Your task to perform on an android device: turn on the 12-hour format for clock Image 0: 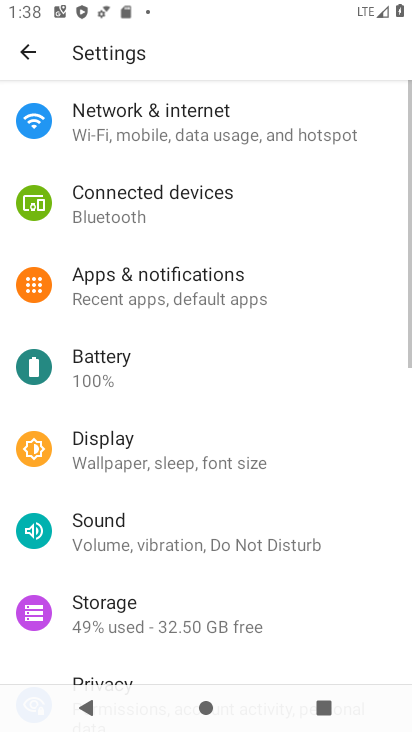
Step 0: press home button
Your task to perform on an android device: turn on the 12-hour format for clock Image 1: 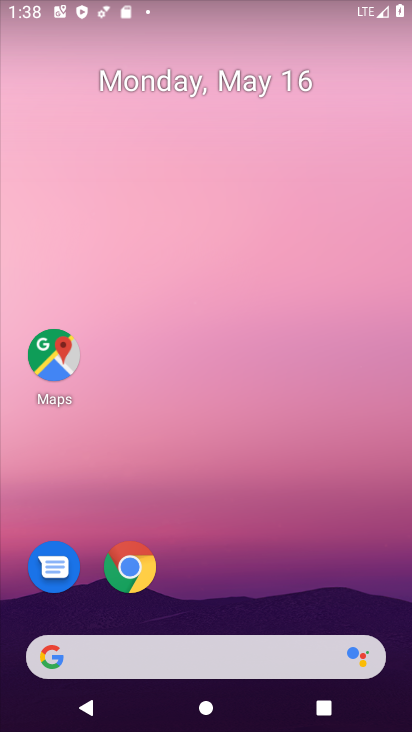
Step 1: drag from (250, 562) to (149, 105)
Your task to perform on an android device: turn on the 12-hour format for clock Image 2: 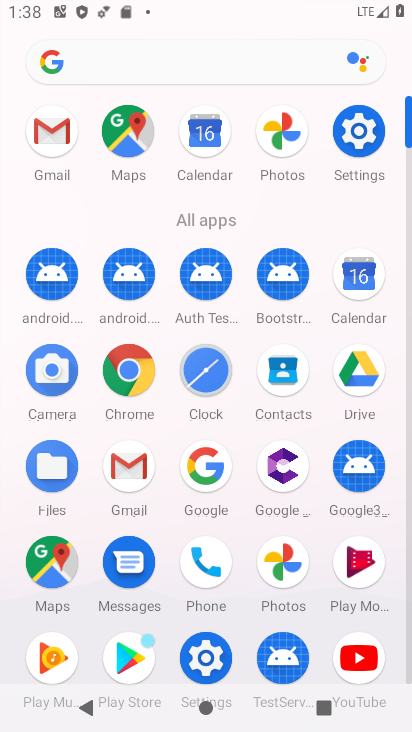
Step 2: click (220, 375)
Your task to perform on an android device: turn on the 12-hour format for clock Image 3: 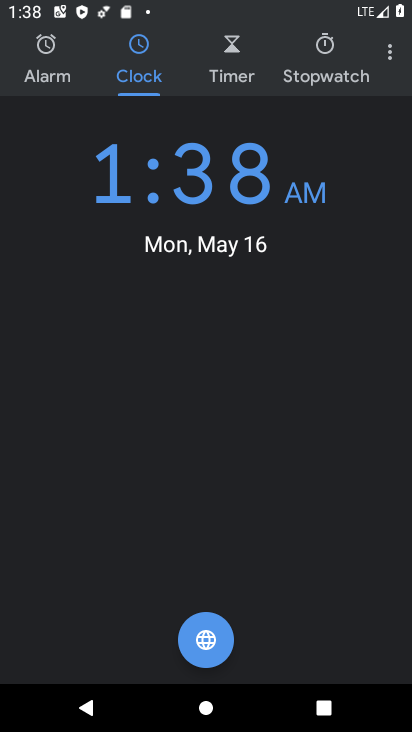
Step 3: click (388, 60)
Your task to perform on an android device: turn on the 12-hour format for clock Image 4: 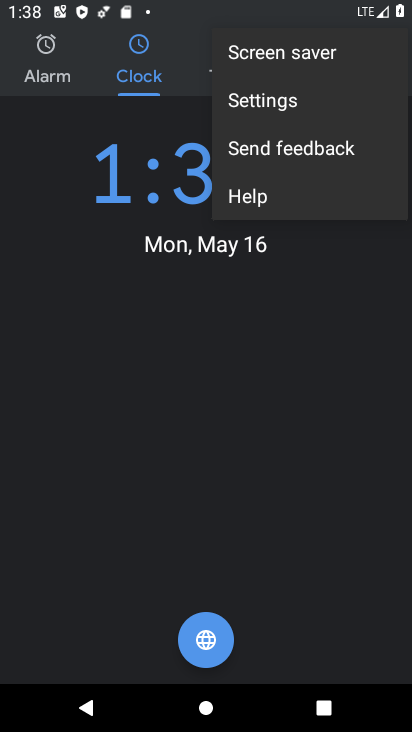
Step 4: click (342, 104)
Your task to perform on an android device: turn on the 12-hour format for clock Image 5: 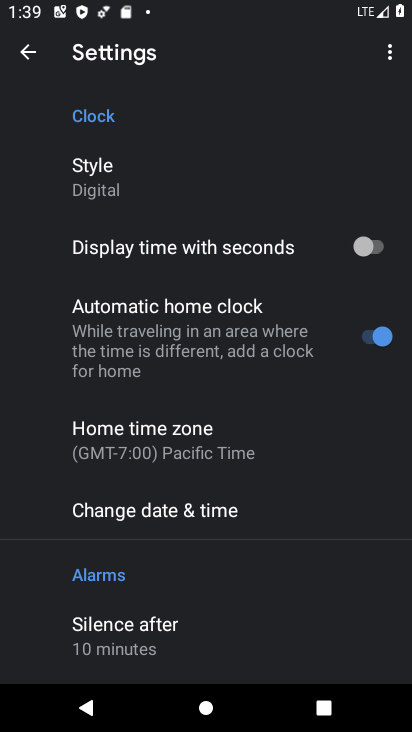
Step 5: click (291, 525)
Your task to perform on an android device: turn on the 12-hour format for clock Image 6: 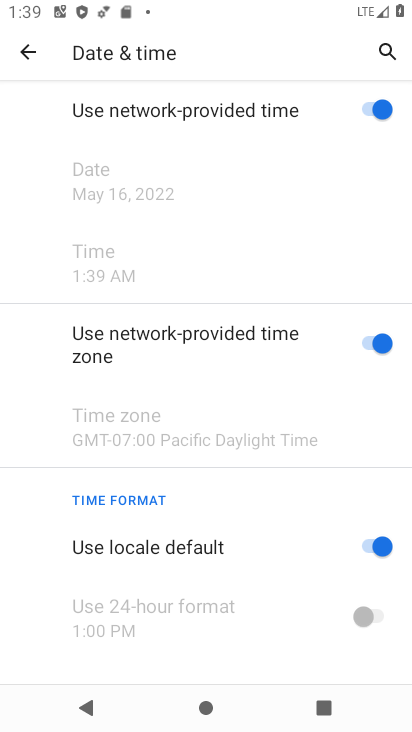
Step 6: task complete